Your task to perform on an android device: Open Google Chrome Image 0: 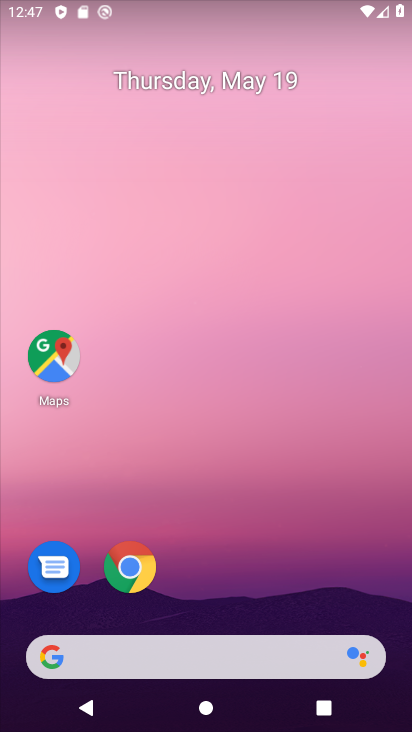
Step 0: press home button
Your task to perform on an android device: Open Google Chrome Image 1: 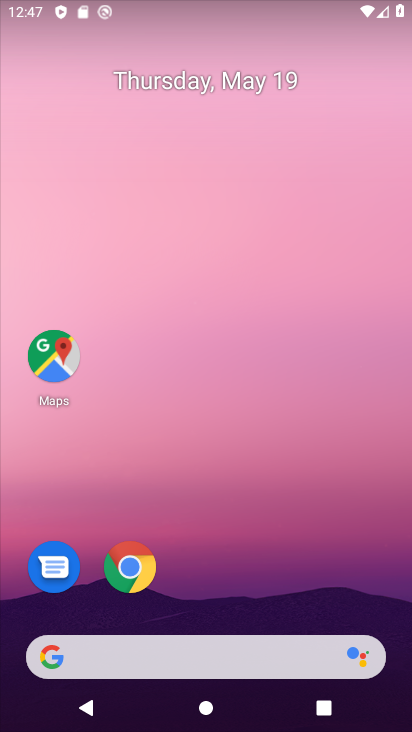
Step 1: click (123, 569)
Your task to perform on an android device: Open Google Chrome Image 2: 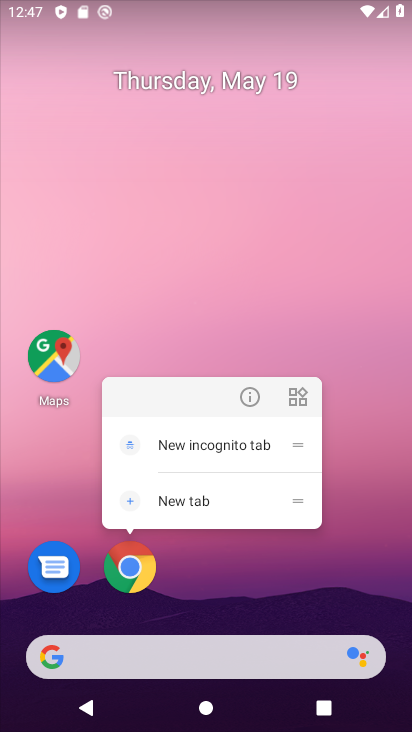
Step 2: click (119, 566)
Your task to perform on an android device: Open Google Chrome Image 3: 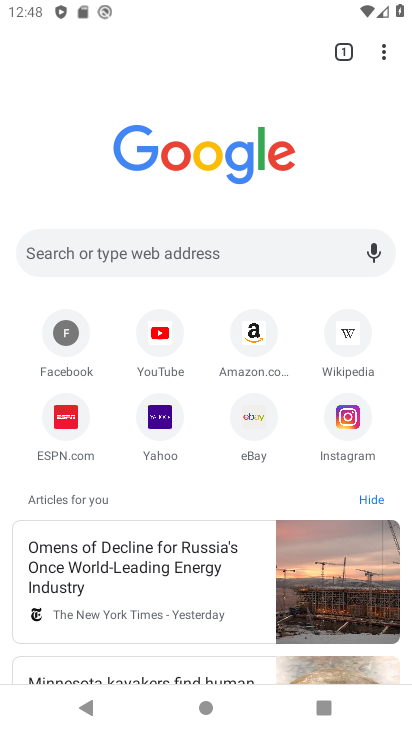
Step 3: task complete